Your task to perform on an android device: Turn off the flashlight Image 0: 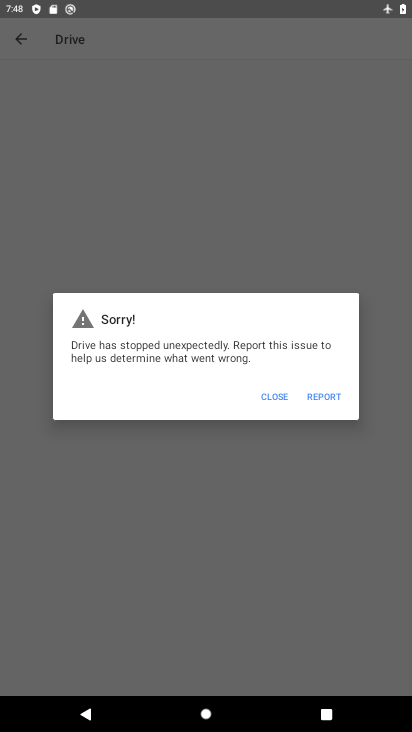
Step 0: press home button
Your task to perform on an android device: Turn off the flashlight Image 1: 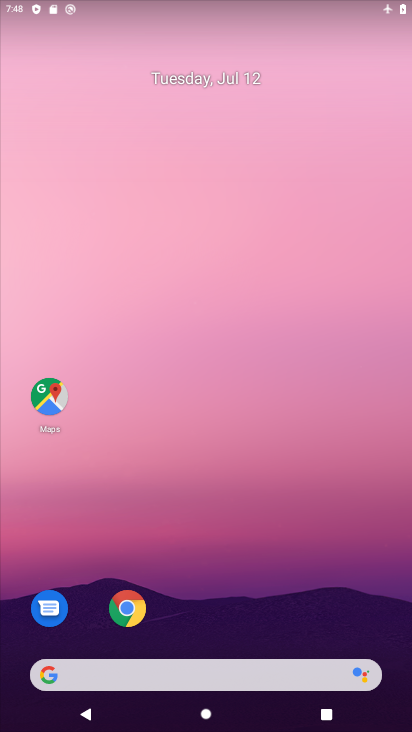
Step 1: drag from (232, 634) to (184, 11)
Your task to perform on an android device: Turn off the flashlight Image 2: 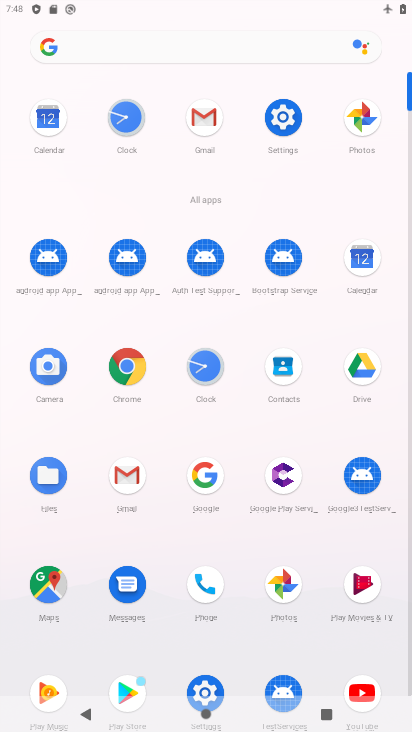
Step 2: click (292, 121)
Your task to perform on an android device: Turn off the flashlight Image 3: 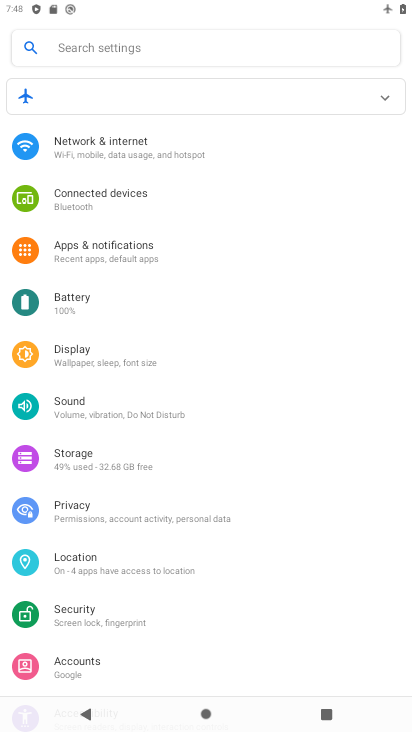
Step 3: task complete